Your task to perform on an android device: Toggle the flashlight Image 0: 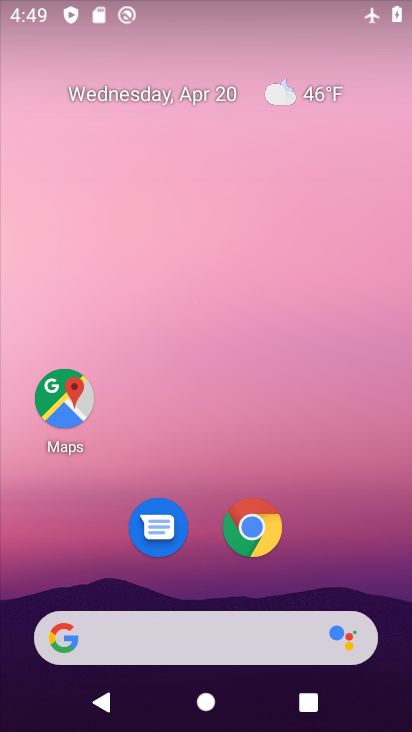
Step 0: drag from (182, 575) to (218, 220)
Your task to perform on an android device: Toggle the flashlight Image 1: 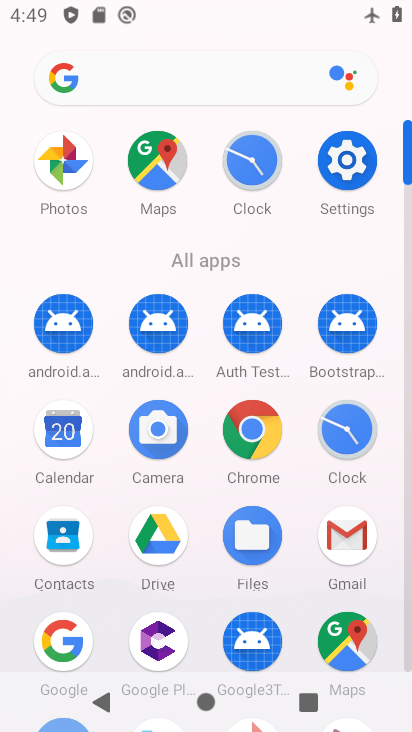
Step 1: click (341, 172)
Your task to perform on an android device: Toggle the flashlight Image 2: 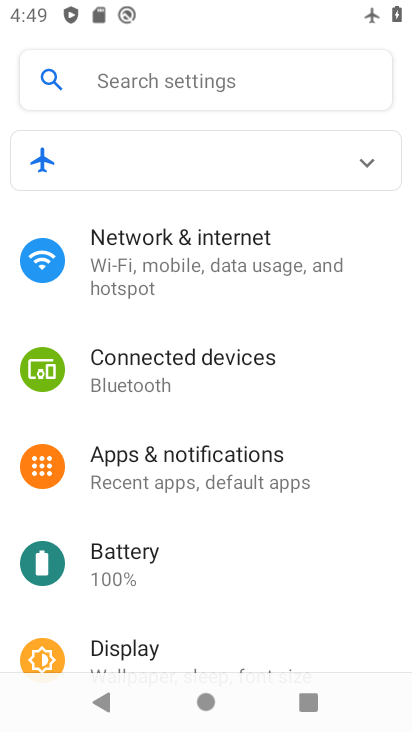
Step 2: drag from (210, 488) to (248, 242)
Your task to perform on an android device: Toggle the flashlight Image 3: 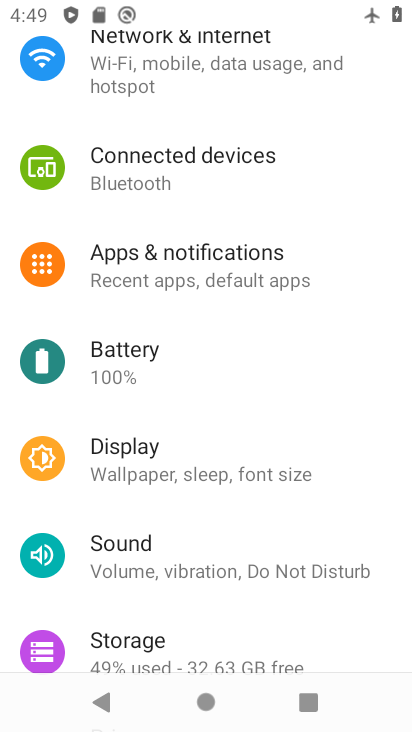
Step 3: click (175, 454)
Your task to perform on an android device: Toggle the flashlight Image 4: 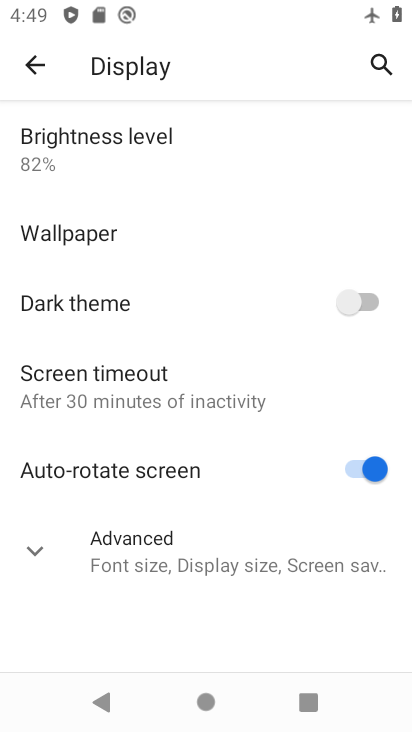
Step 4: task complete